Your task to perform on an android device: visit the assistant section in the google photos Image 0: 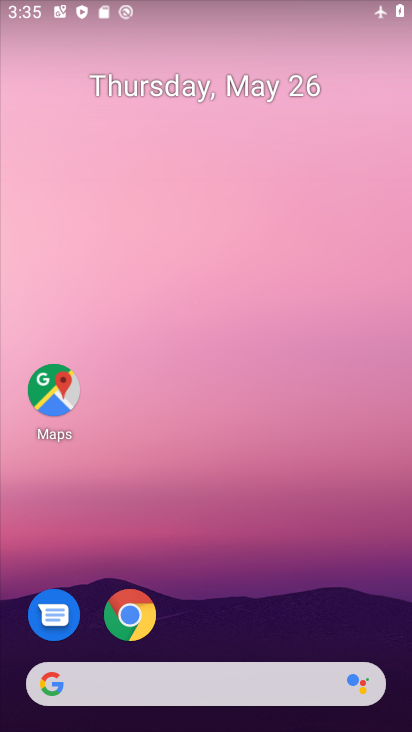
Step 0: drag from (322, 605) to (337, 205)
Your task to perform on an android device: visit the assistant section in the google photos Image 1: 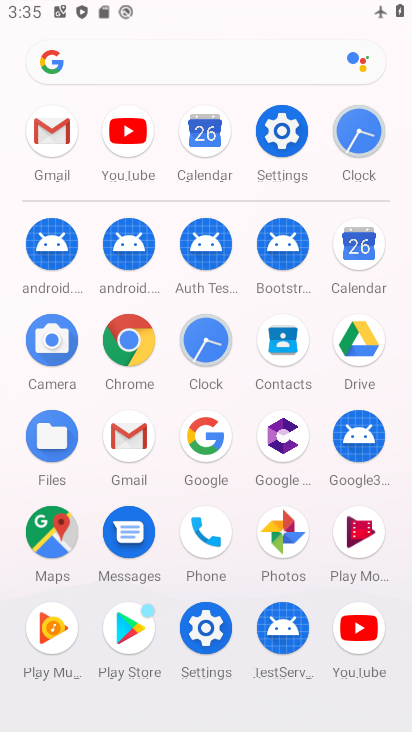
Step 1: click (270, 528)
Your task to perform on an android device: visit the assistant section in the google photos Image 2: 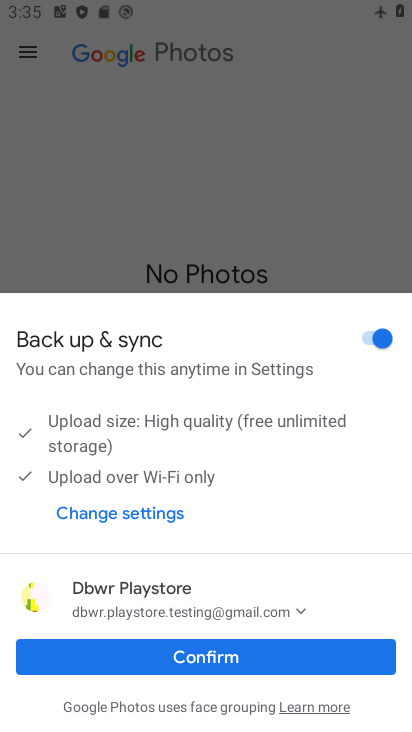
Step 2: click (270, 658)
Your task to perform on an android device: visit the assistant section in the google photos Image 3: 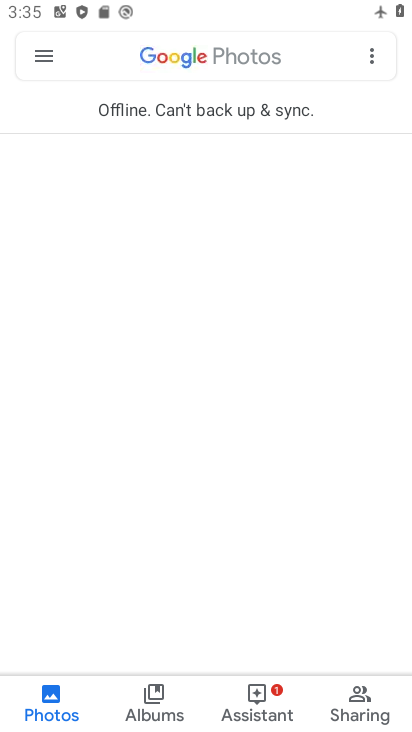
Step 3: click (256, 697)
Your task to perform on an android device: visit the assistant section in the google photos Image 4: 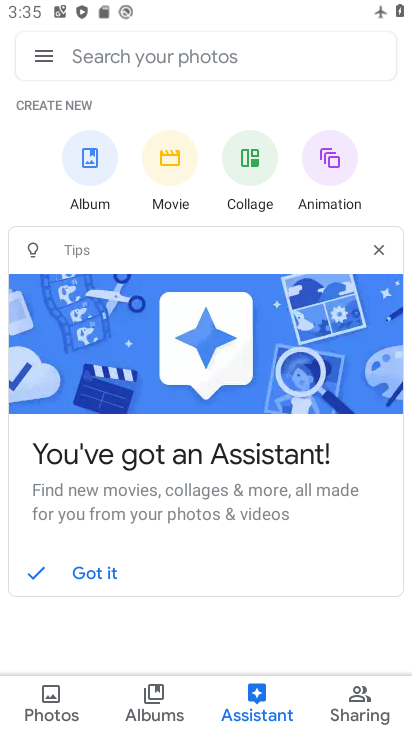
Step 4: task complete